Your task to perform on an android device: When is my next appointment? Image 0: 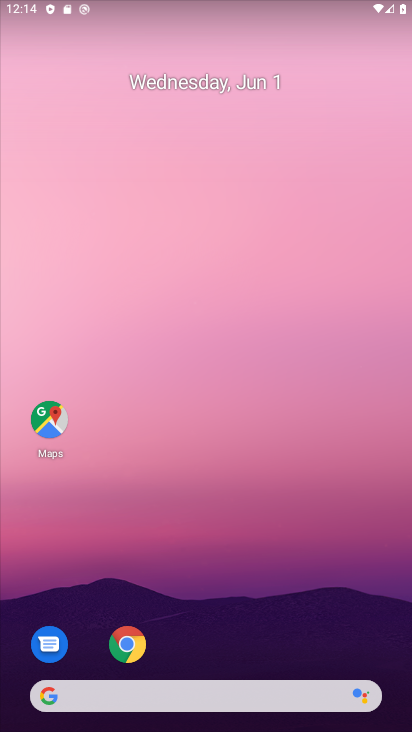
Step 0: press home button
Your task to perform on an android device: When is my next appointment? Image 1: 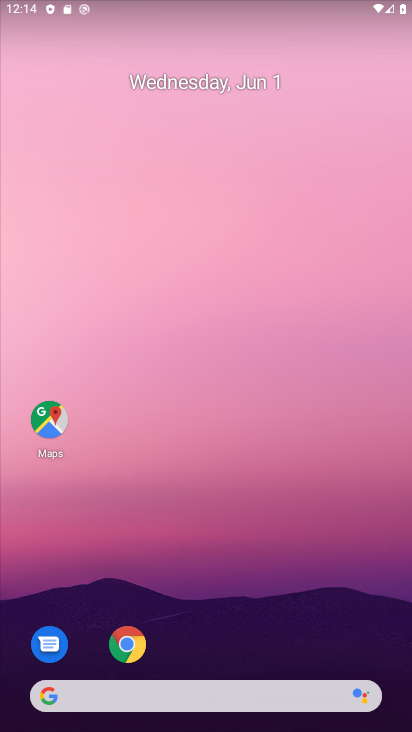
Step 1: drag from (253, 647) to (243, 99)
Your task to perform on an android device: When is my next appointment? Image 2: 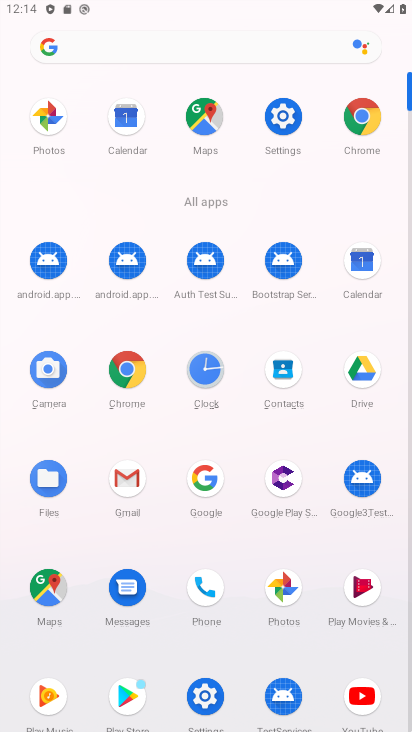
Step 2: click (142, 115)
Your task to perform on an android device: When is my next appointment? Image 3: 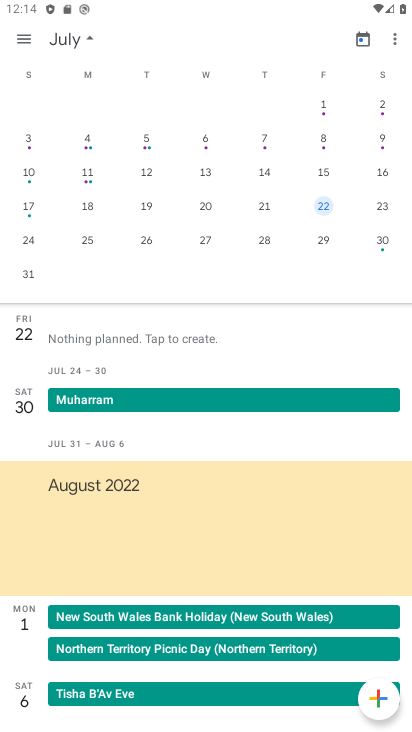
Step 3: drag from (22, 130) to (401, 197)
Your task to perform on an android device: When is my next appointment? Image 4: 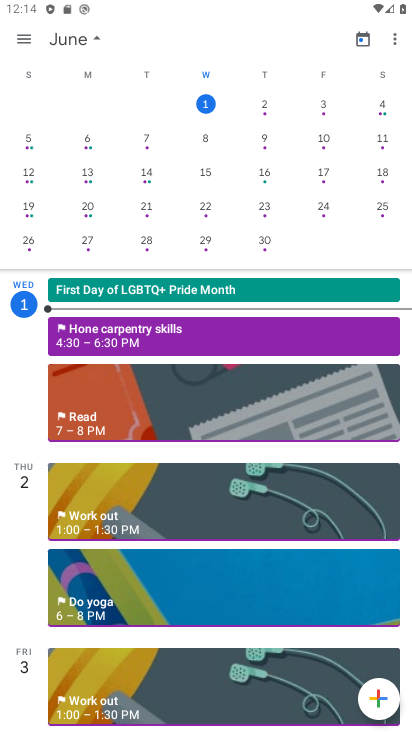
Step 4: click (209, 107)
Your task to perform on an android device: When is my next appointment? Image 5: 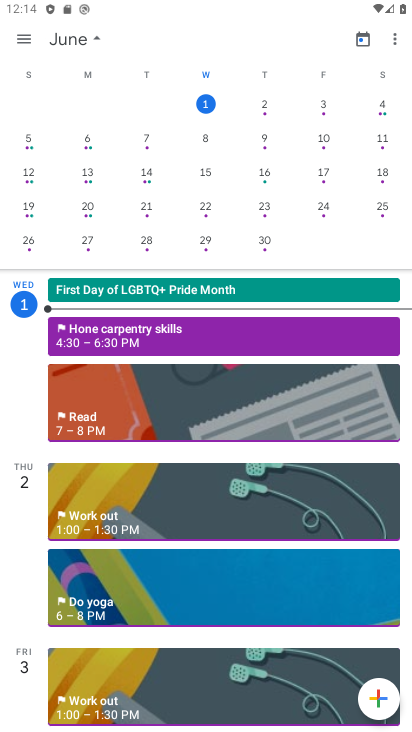
Step 5: click (93, 35)
Your task to perform on an android device: When is my next appointment? Image 6: 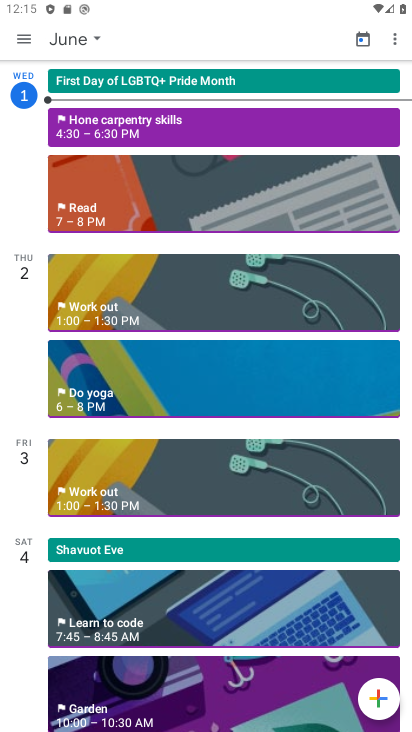
Step 6: task complete